Your task to perform on an android device: all mails in gmail Image 0: 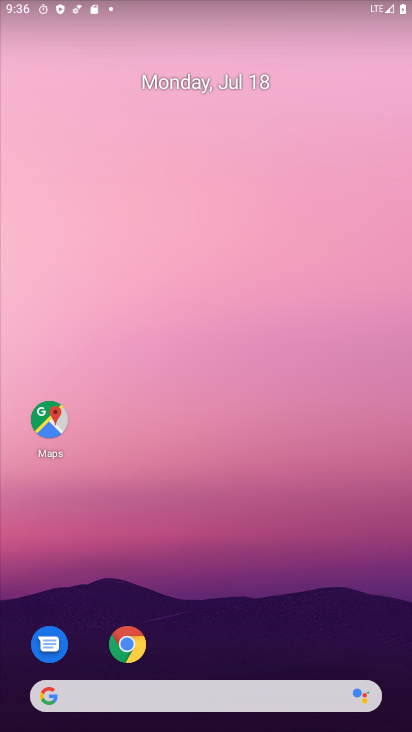
Step 0: press home button
Your task to perform on an android device: all mails in gmail Image 1: 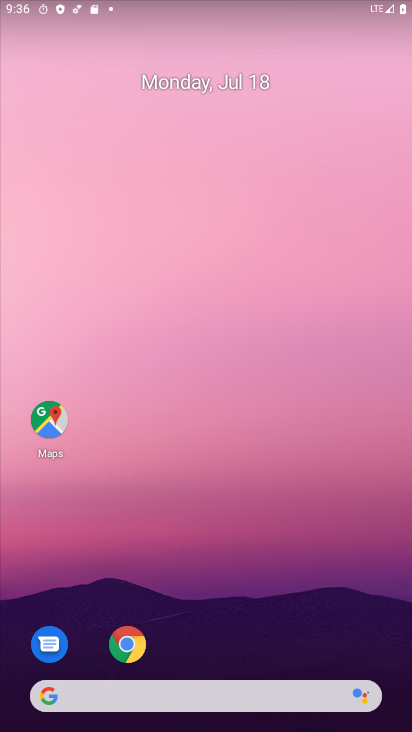
Step 1: drag from (253, 15) to (212, 2)
Your task to perform on an android device: all mails in gmail Image 2: 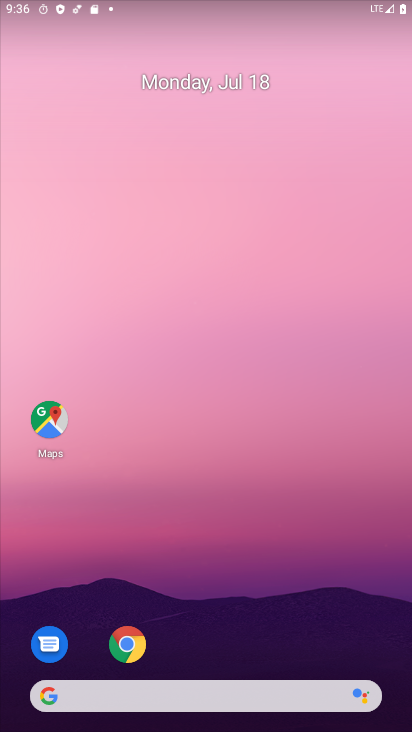
Step 2: drag from (222, 651) to (248, 27)
Your task to perform on an android device: all mails in gmail Image 3: 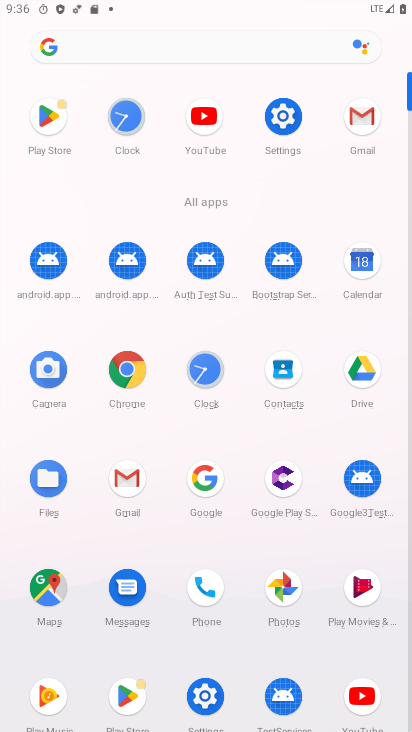
Step 3: click (362, 112)
Your task to perform on an android device: all mails in gmail Image 4: 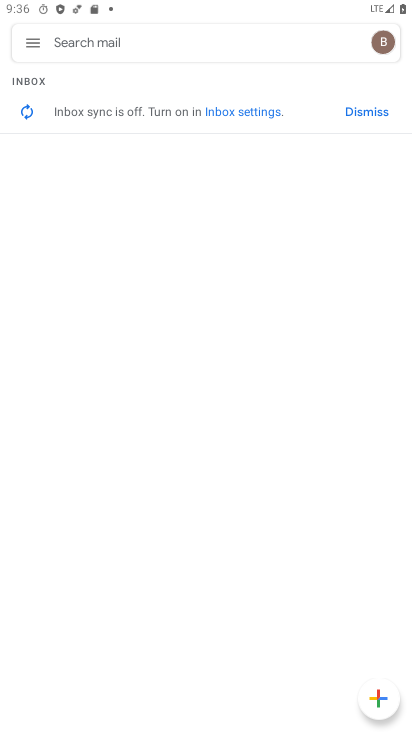
Step 4: click (32, 44)
Your task to perform on an android device: all mails in gmail Image 5: 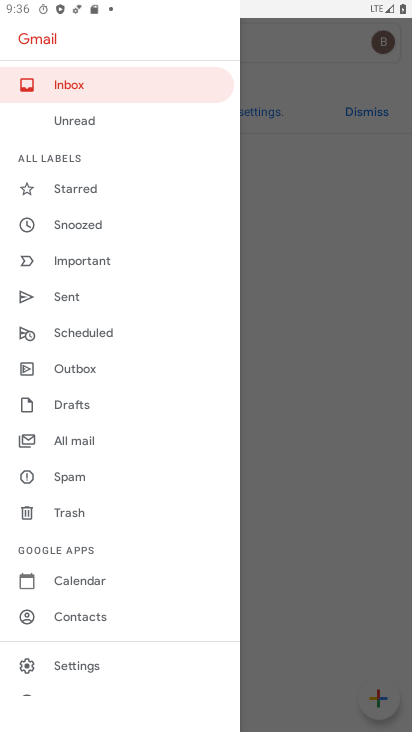
Step 5: click (95, 435)
Your task to perform on an android device: all mails in gmail Image 6: 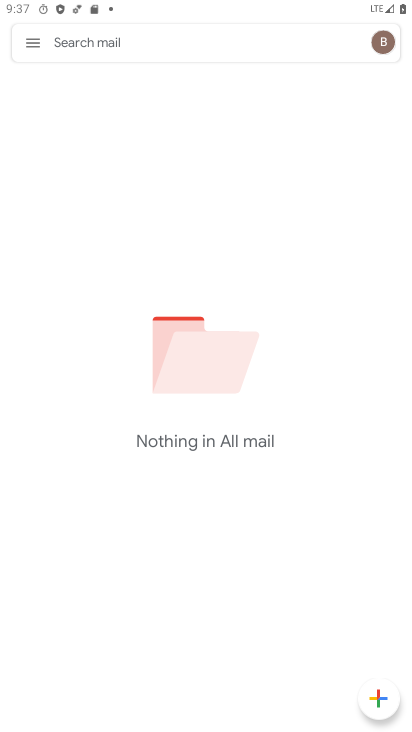
Step 6: task complete